Your task to perform on an android device: Open notification settings Image 0: 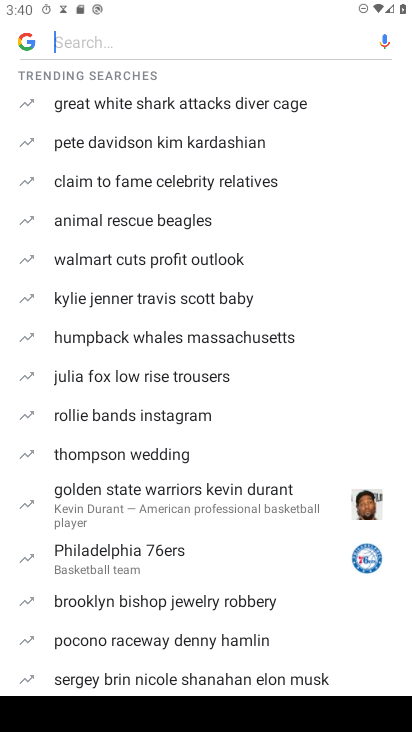
Step 0: press home button
Your task to perform on an android device: Open notification settings Image 1: 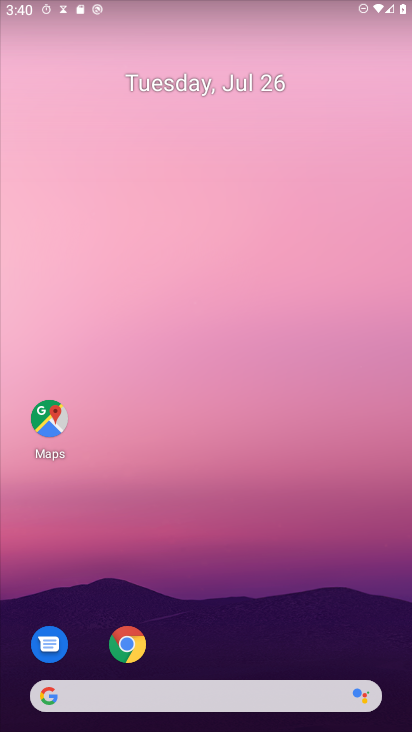
Step 1: drag from (274, 604) to (263, 75)
Your task to perform on an android device: Open notification settings Image 2: 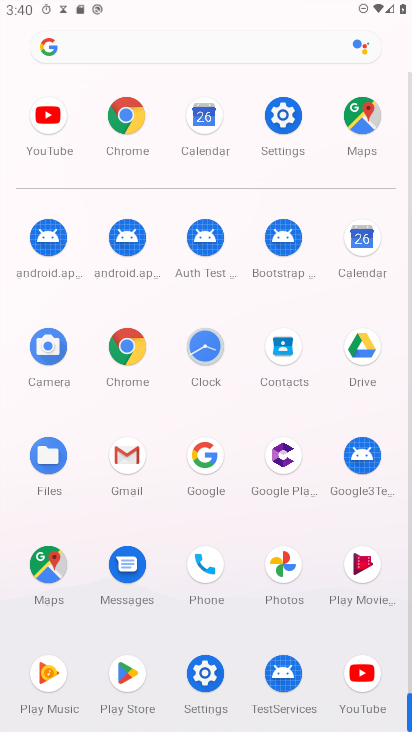
Step 2: click (274, 114)
Your task to perform on an android device: Open notification settings Image 3: 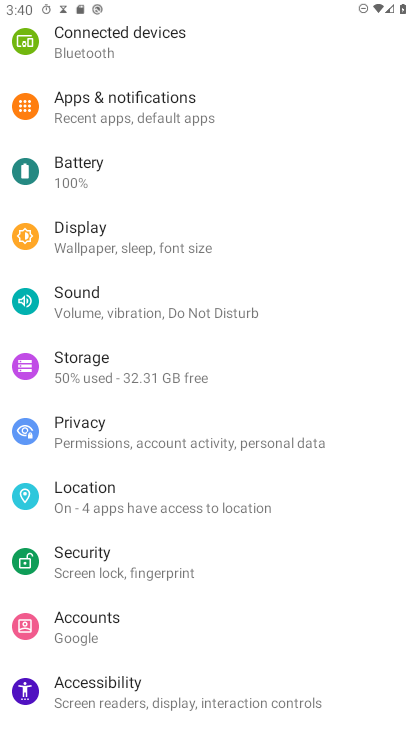
Step 3: click (125, 99)
Your task to perform on an android device: Open notification settings Image 4: 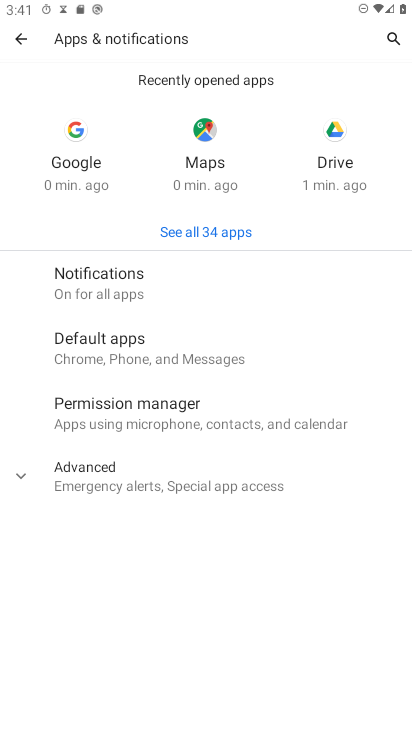
Step 4: task complete